Your task to perform on an android device: open wifi settings Image 0: 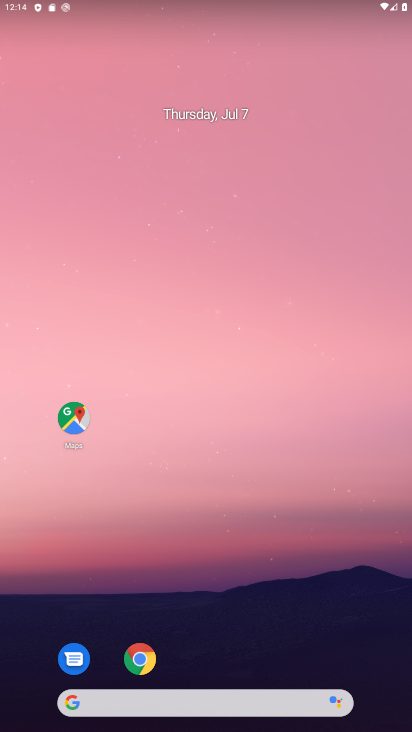
Step 0: drag from (243, 612) to (184, 153)
Your task to perform on an android device: open wifi settings Image 1: 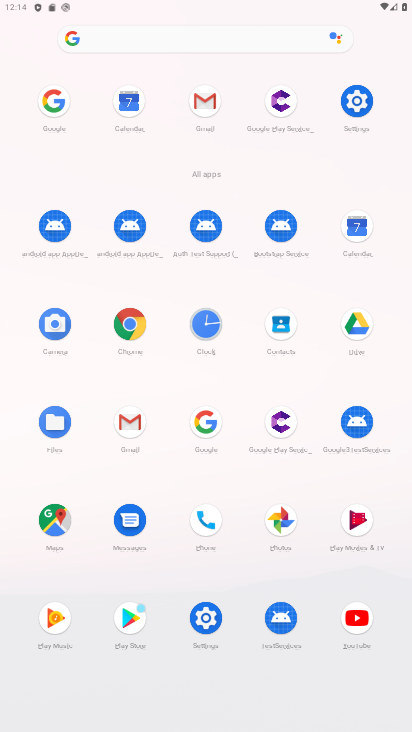
Step 1: click (355, 100)
Your task to perform on an android device: open wifi settings Image 2: 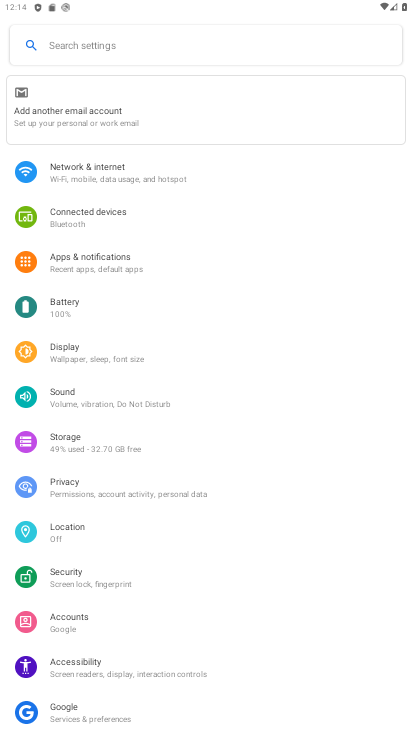
Step 2: click (99, 167)
Your task to perform on an android device: open wifi settings Image 3: 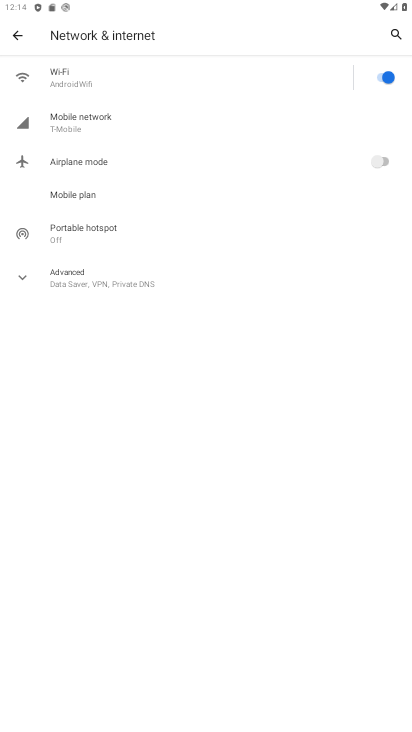
Step 3: click (75, 71)
Your task to perform on an android device: open wifi settings Image 4: 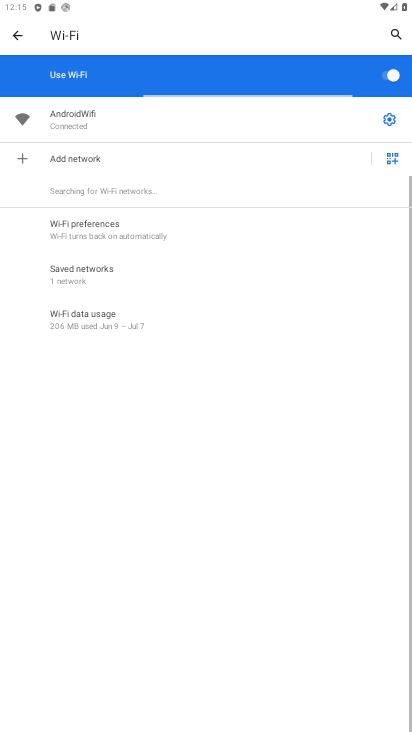
Step 4: task complete